Your task to perform on an android device: Do I have any events this weekend? Image 0: 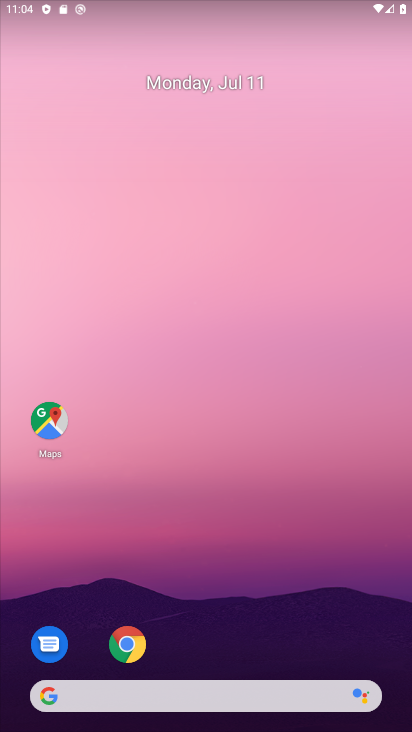
Step 0: drag from (400, 668) to (326, 137)
Your task to perform on an android device: Do I have any events this weekend? Image 1: 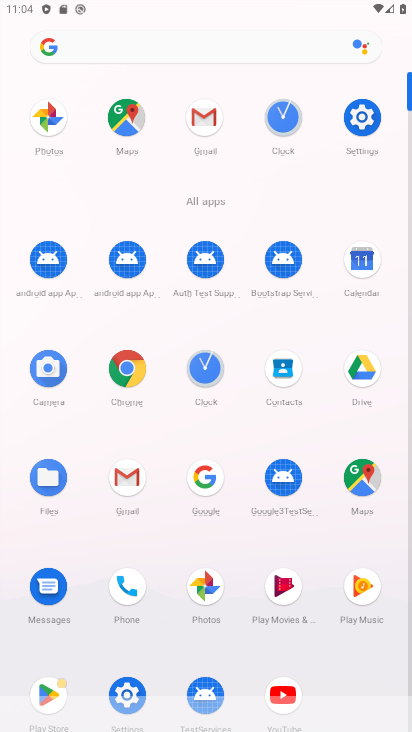
Step 1: click (367, 259)
Your task to perform on an android device: Do I have any events this weekend? Image 2: 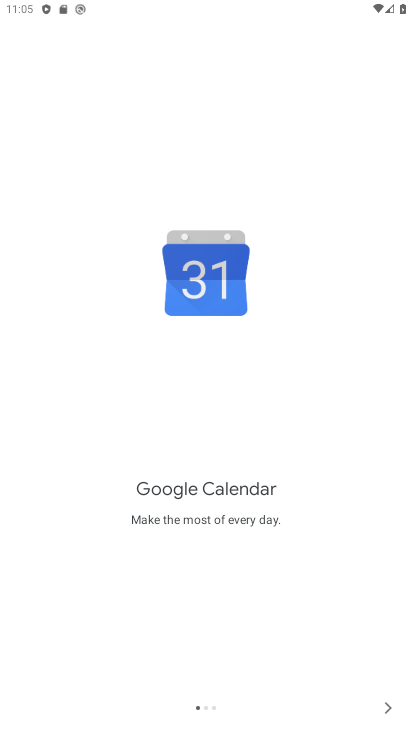
Step 2: click (384, 702)
Your task to perform on an android device: Do I have any events this weekend? Image 3: 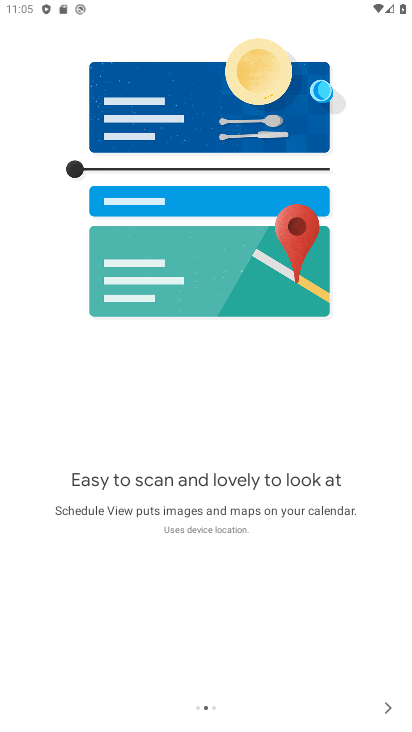
Step 3: click (383, 700)
Your task to perform on an android device: Do I have any events this weekend? Image 4: 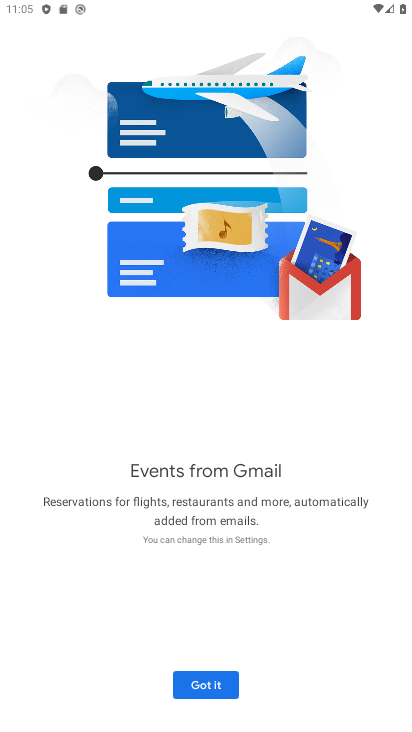
Step 4: click (199, 676)
Your task to perform on an android device: Do I have any events this weekend? Image 5: 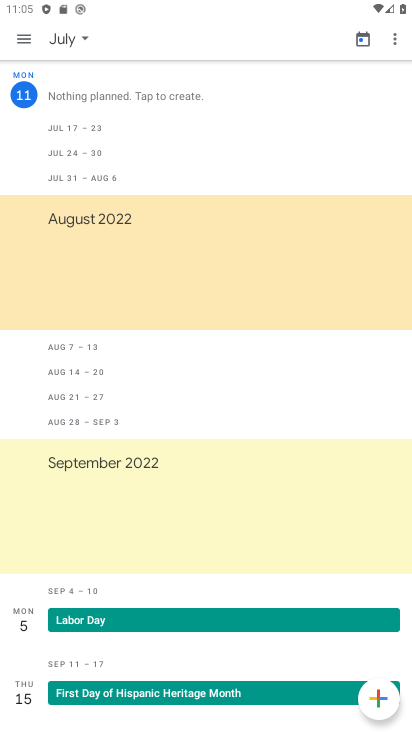
Step 5: task complete